Your task to perform on an android device: find snoozed emails in the gmail app Image 0: 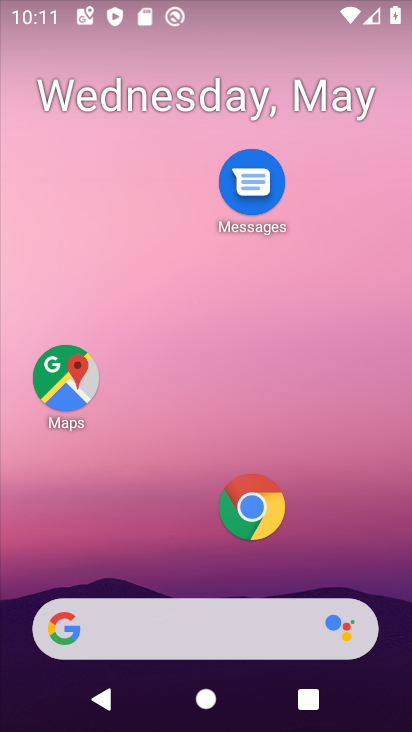
Step 0: press home button
Your task to perform on an android device: find snoozed emails in the gmail app Image 1: 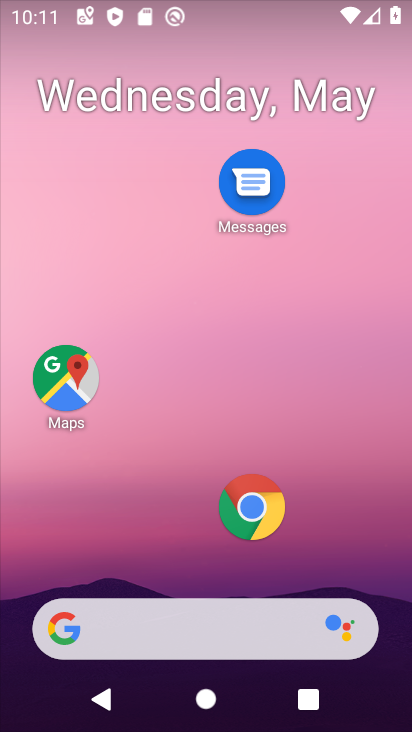
Step 1: drag from (209, 574) to (225, 78)
Your task to perform on an android device: find snoozed emails in the gmail app Image 2: 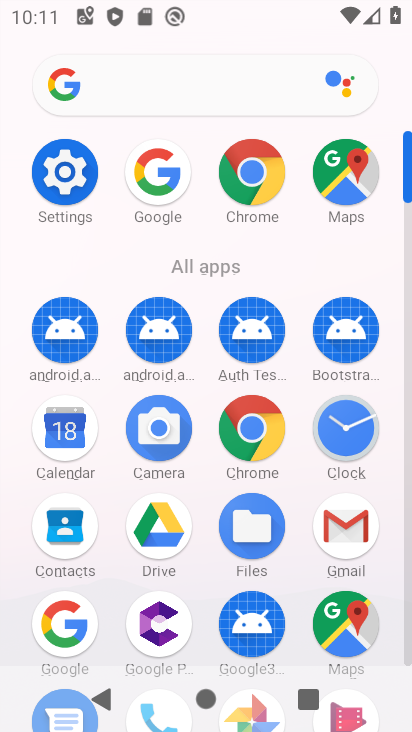
Step 2: click (345, 515)
Your task to perform on an android device: find snoozed emails in the gmail app Image 3: 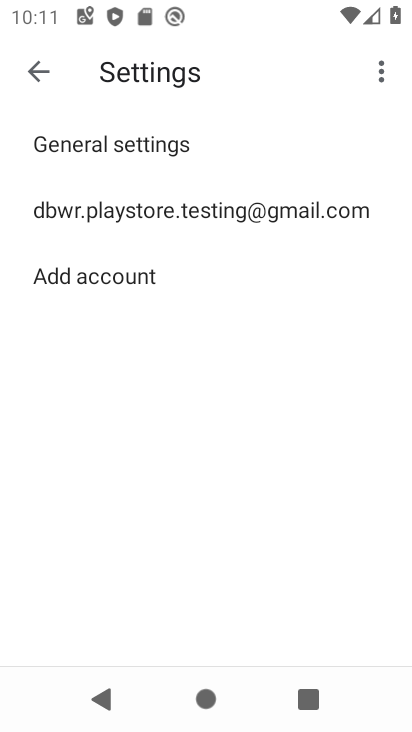
Step 3: click (46, 69)
Your task to perform on an android device: find snoozed emails in the gmail app Image 4: 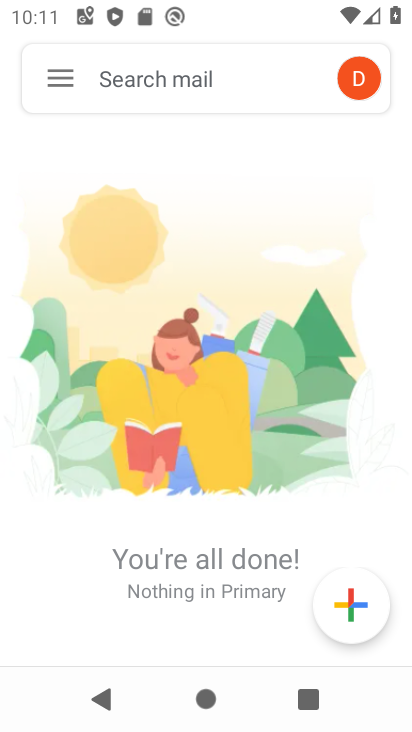
Step 4: click (57, 75)
Your task to perform on an android device: find snoozed emails in the gmail app Image 5: 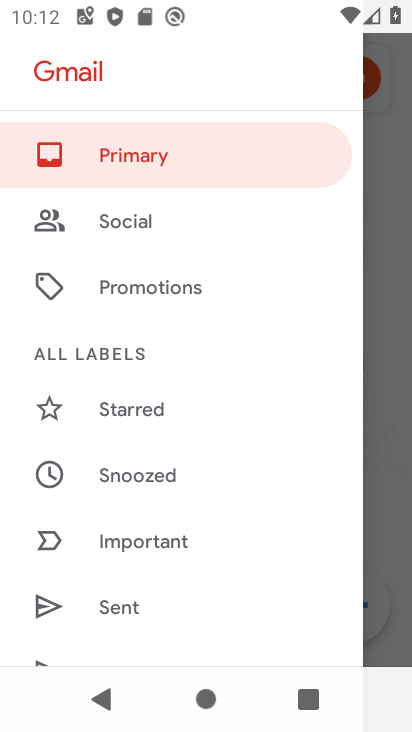
Step 5: click (79, 471)
Your task to perform on an android device: find snoozed emails in the gmail app Image 6: 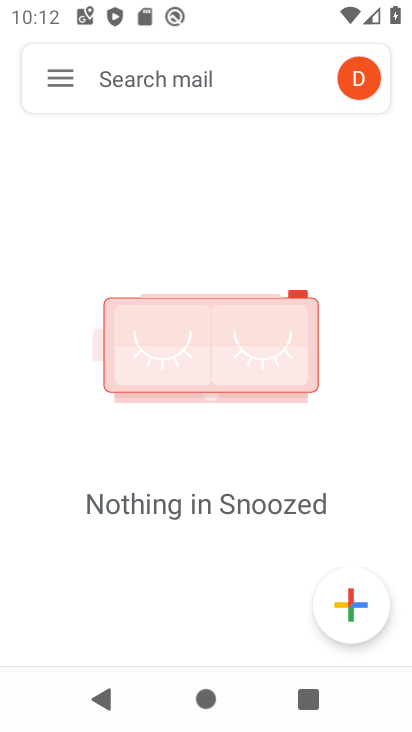
Step 6: task complete